Your task to perform on an android device: empty trash in google photos Image 0: 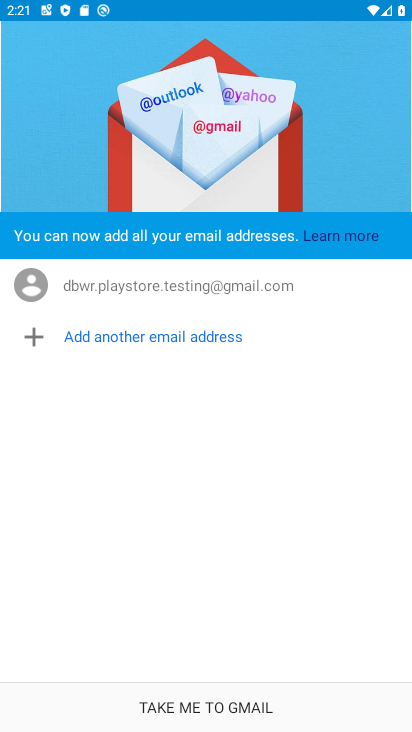
Step 0: press home button
Your task to perform on an android device: empty trash in google photos Image 1: 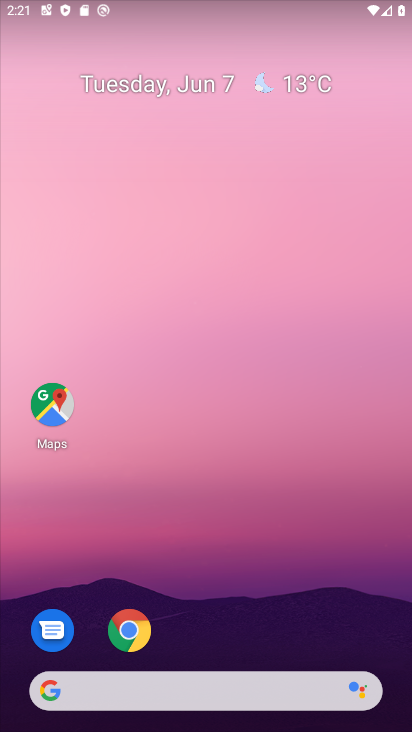
Step 1: drag from (278, 600) to (276, 160)
Your task to perform on an android device: empty trash in google photos Image 2: 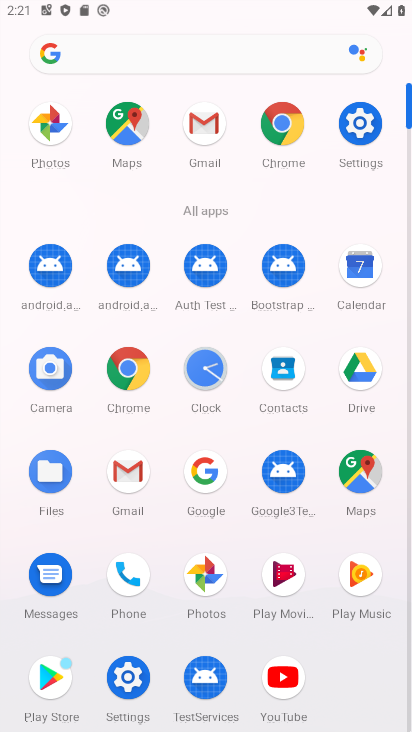
Step 2: click (190, 579)
Your task to perform on an android device: empty trash in google photos Image 3: 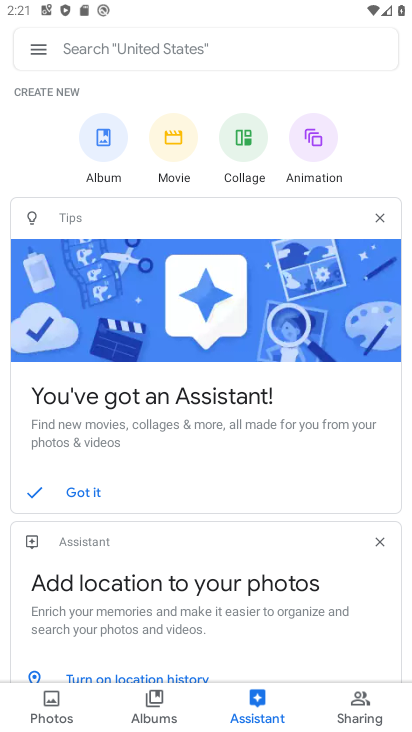
Step 3: click (48, 695)
Your task to perform on an android device: empty trash in google photos Image 4: 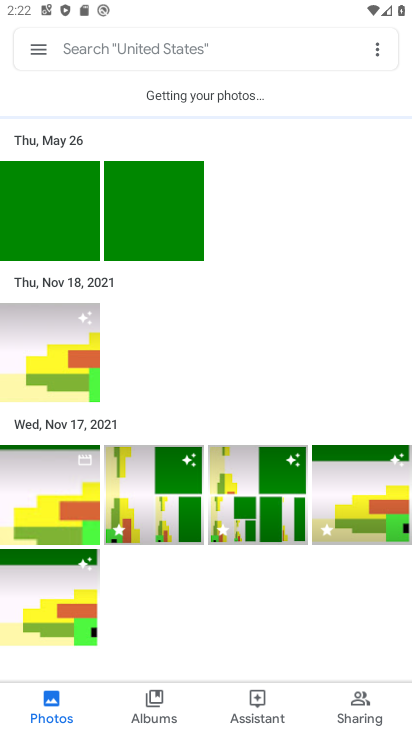
Step 4: click (39, 40)
Your task to perform on an android device: empty trash in google photos Image 5: 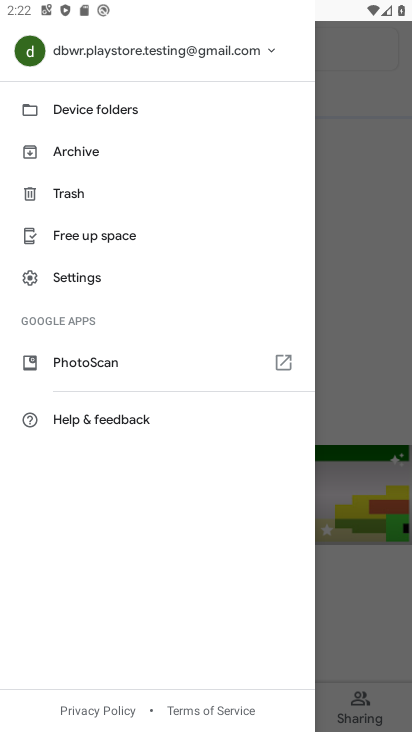
Step 5: click (69, 193)
Your task to perform on an android device: empty trash in google photos Image 6: 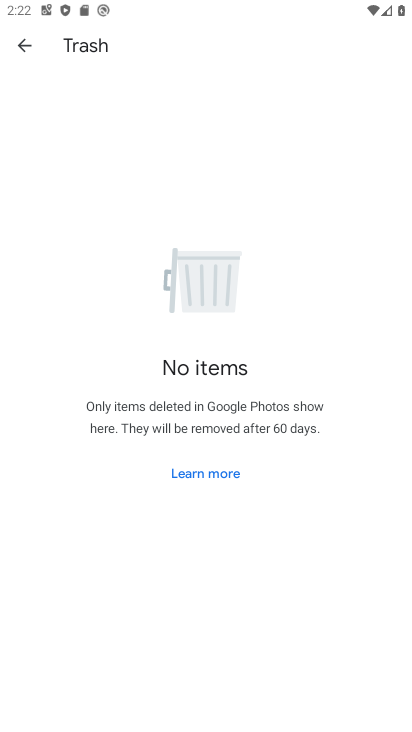
Step 6: task complete